Your task to perform on an android device: visit the assistant section in the google photos Image 0: 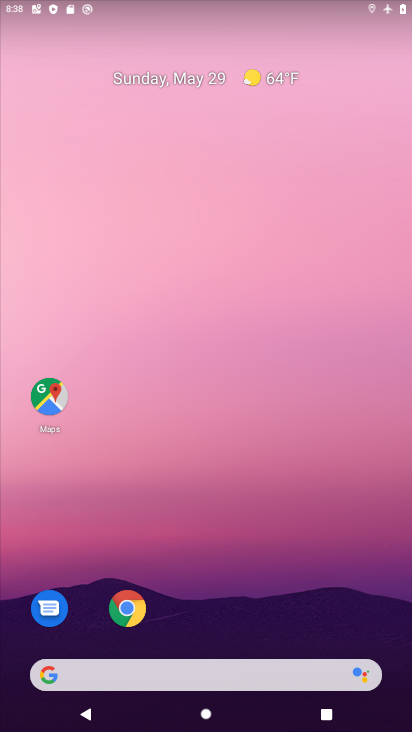
Step 0: drag from (260, 556) to (131, 92)
Your task to perform on an android device: visit the assistant section in the google photos Image 1: 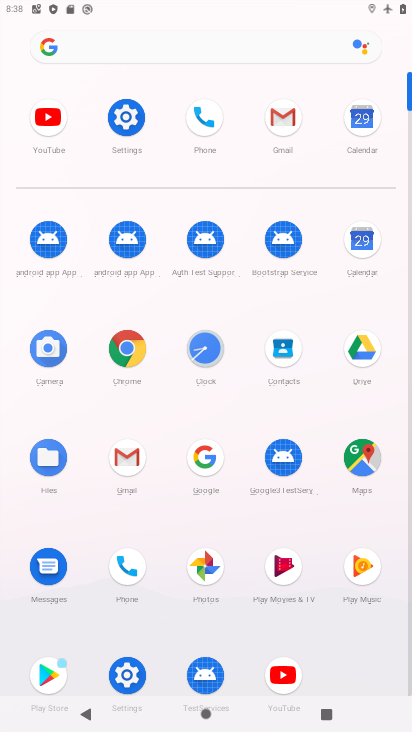
Step 1: click (199, 565)
Your task to perform on an android device: visit the assistant section in the google photos Image 2: 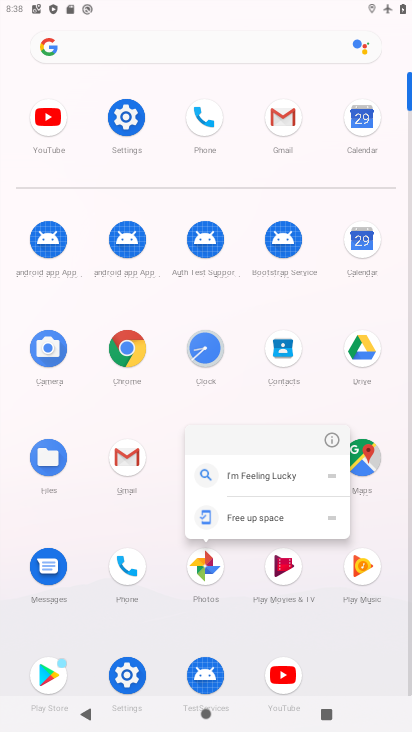
Step 2: click (200, 565)
Your task to perform on an android device: visit the assistant section in the google photos Image 3: 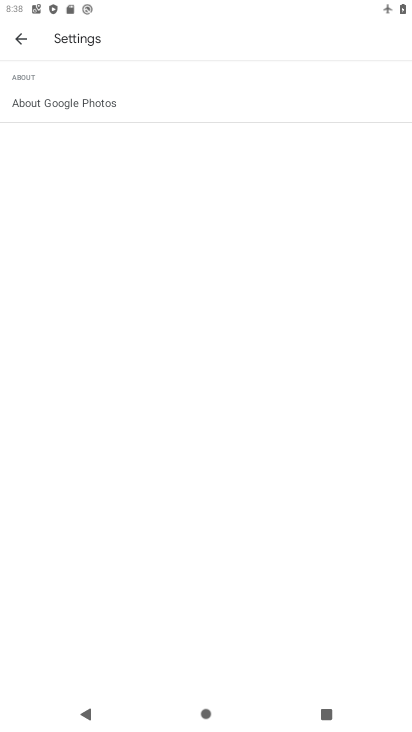
Step 3: click (16, 33)
Your task to perform on an android device: visit the assistant section in the google photos Image 4: 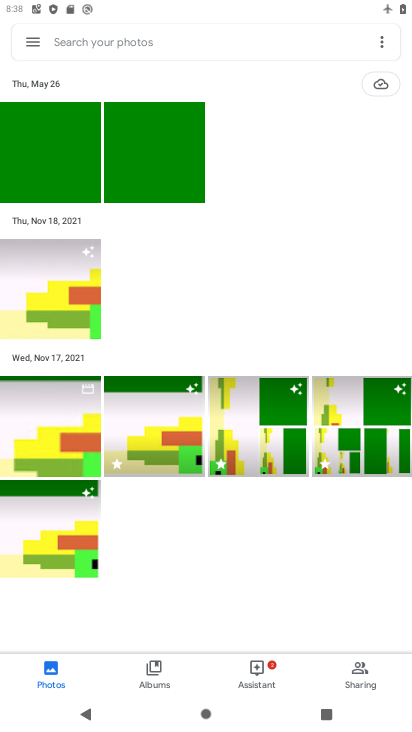
Step 4: click (253, 671)
Your task to perform on an android device: visit the assistant section in the google photos Image 5: 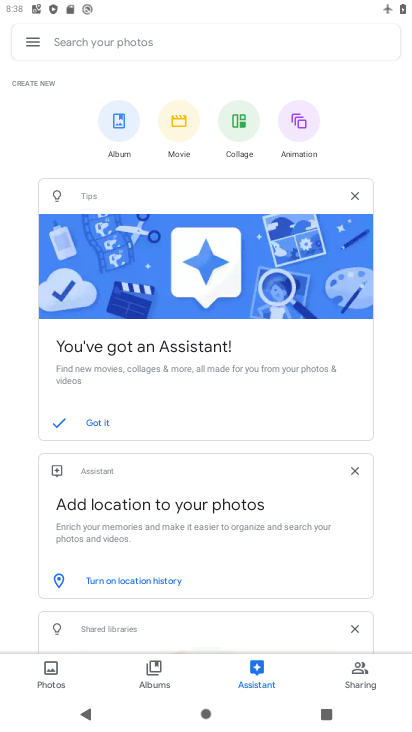
Step 5: task complete